Your task to perform on an android device: install app "Reddit" Image 0: 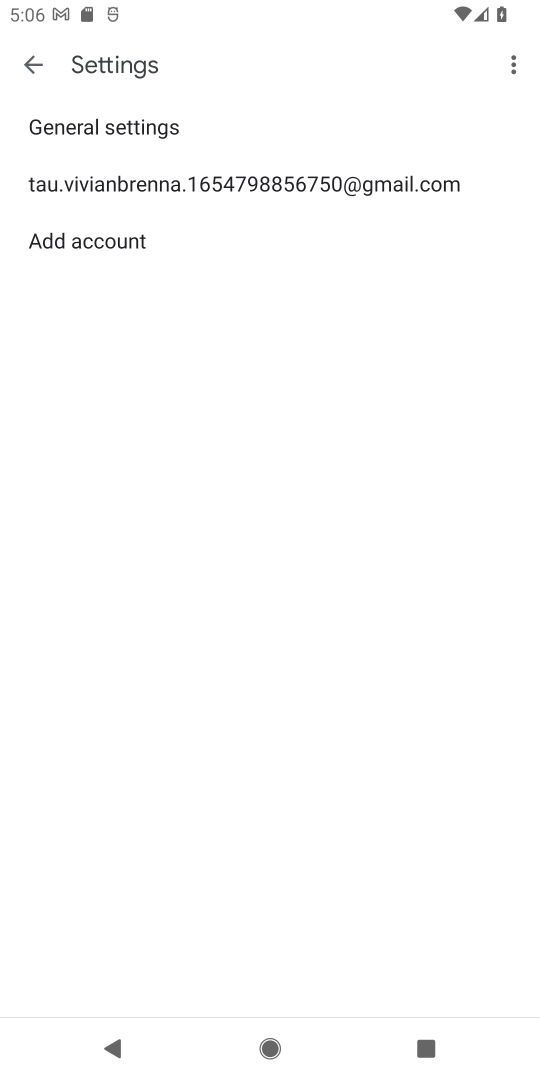
Step 0: press home button
Your task to perform on an android device: install app "Reddit" Image 1: 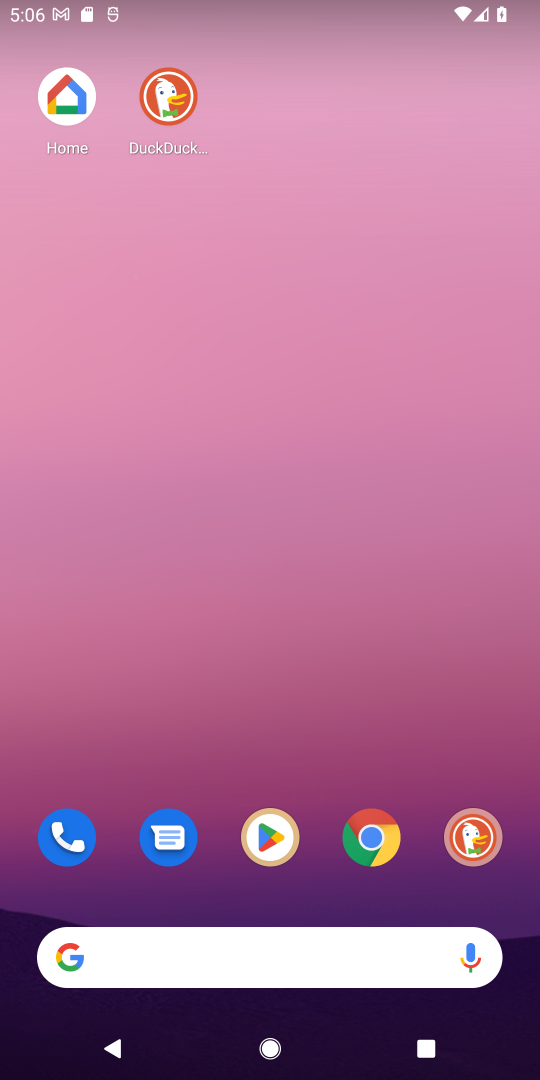
Step 1: click (270, 840)
Your task to perform on an android device: install app "Reddit" Image 2: 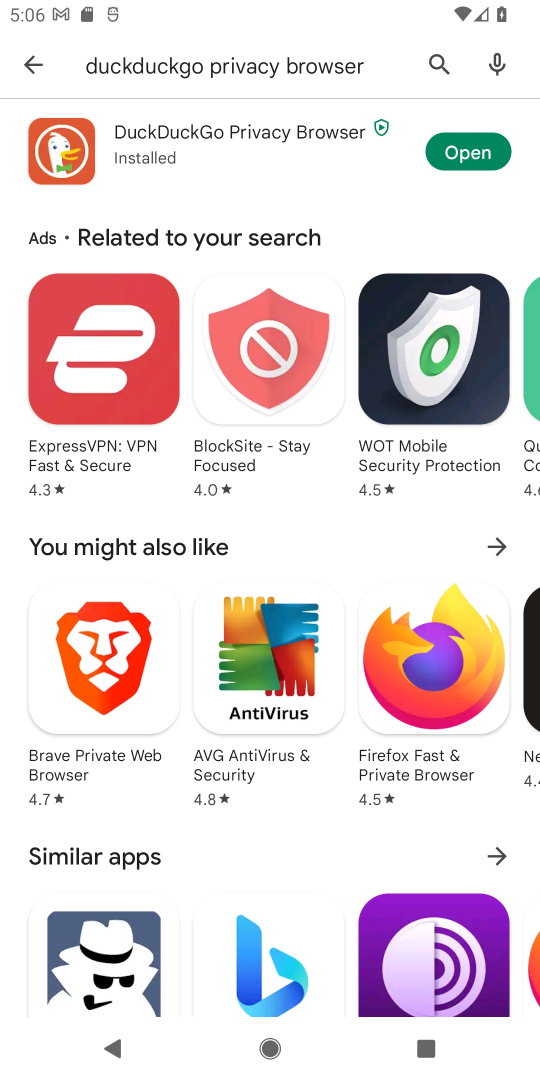
Step 2: click (431, 55)
Your task to perform on an android device: install app "Reddit" Image 3: 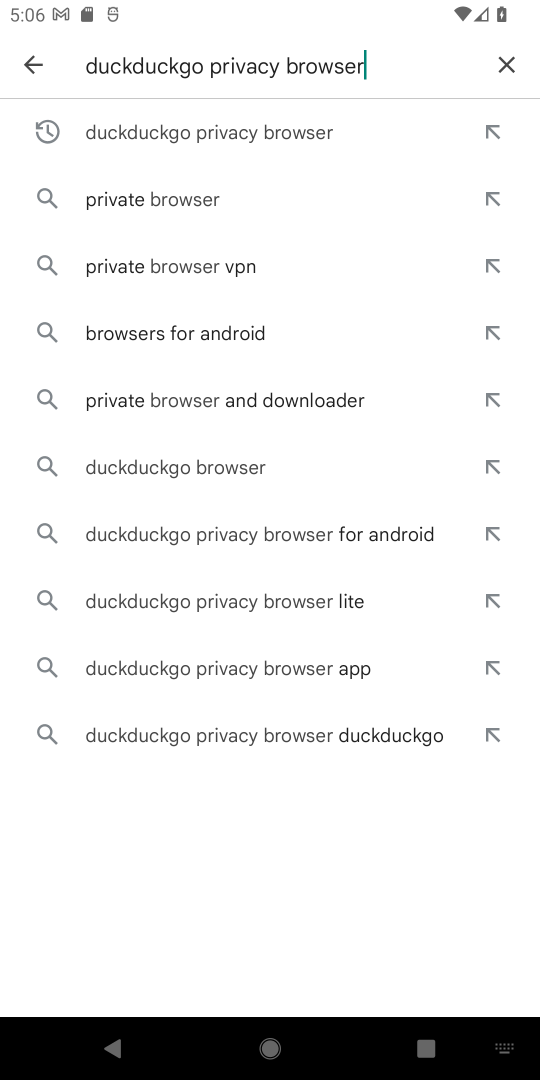
Step 3: click (507, 56)
Your task to perform on an android device: install app "Reddit" Image 4: 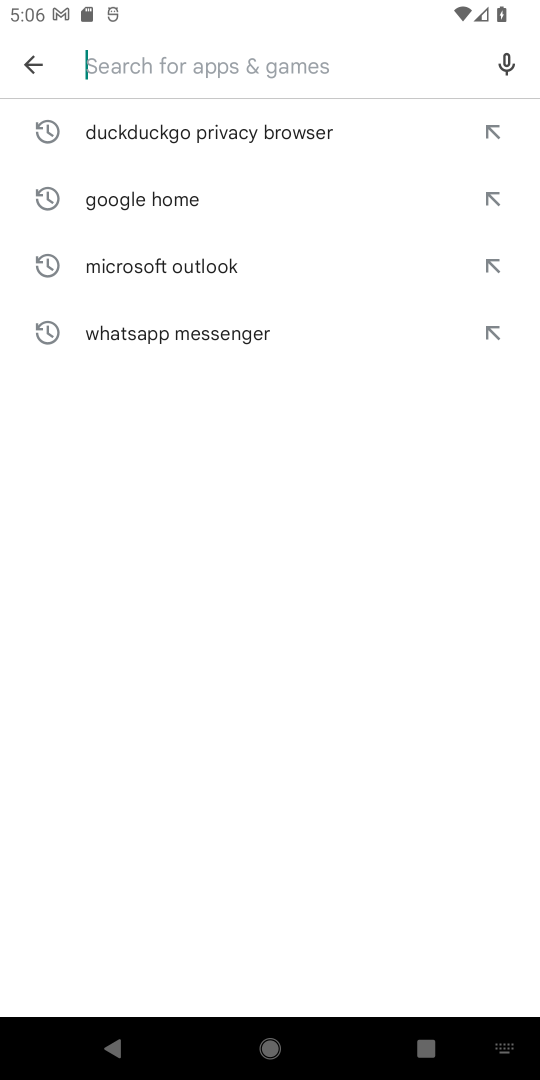
Step 4: type "Reddit"
Your task to perform on an android device: install app "Reddit" Image 5: 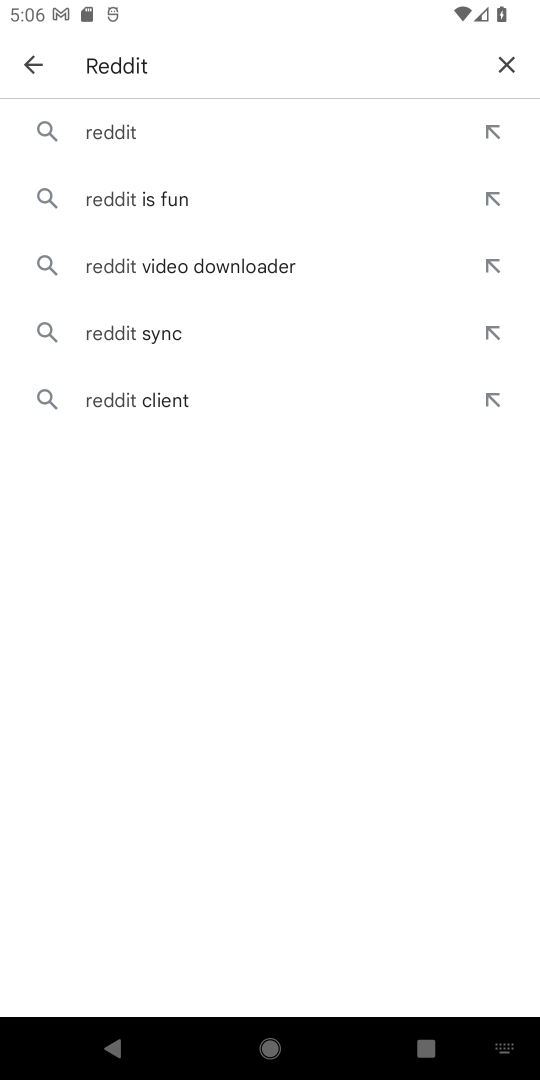
Step 5: click (125, 116)
Your task to perform on an android device: install app "Reddit" Image 6: 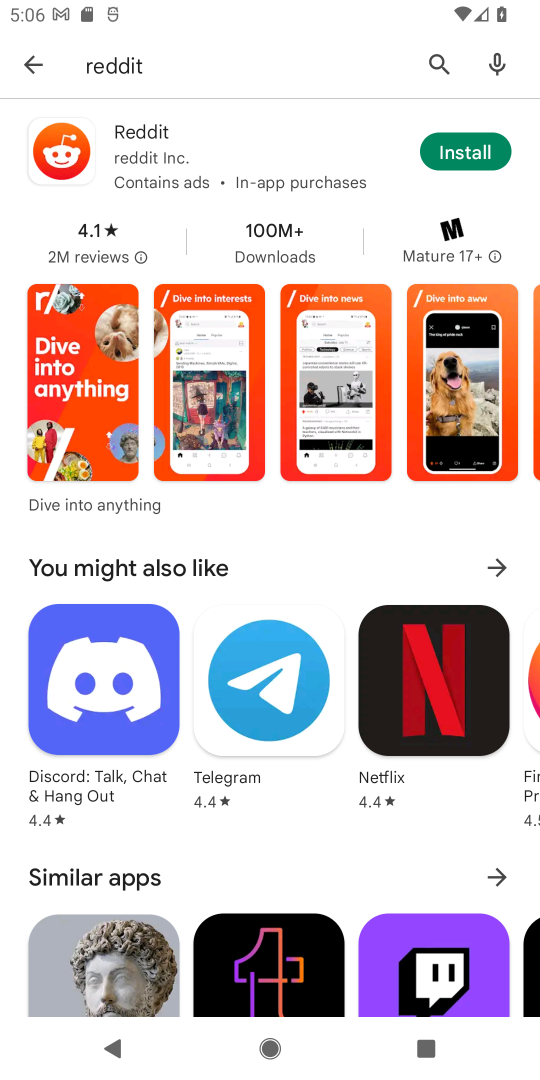
Step 6: click (481, 146)
Your task to perform on an android device: install app "Reddit" Image 7: 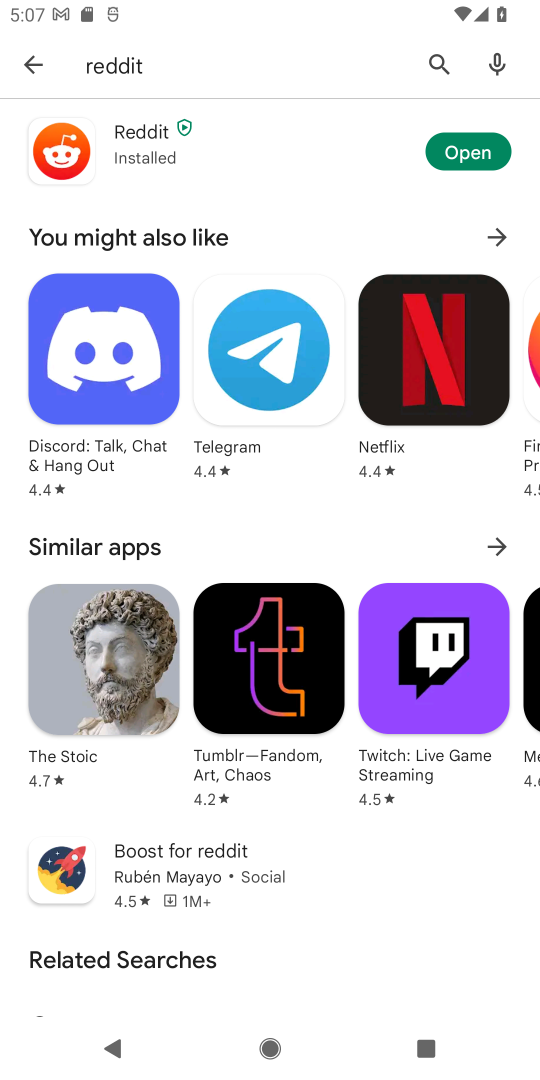
Step 7: task complete